Your task to perform on an android device: change text size in settings app Image 0: 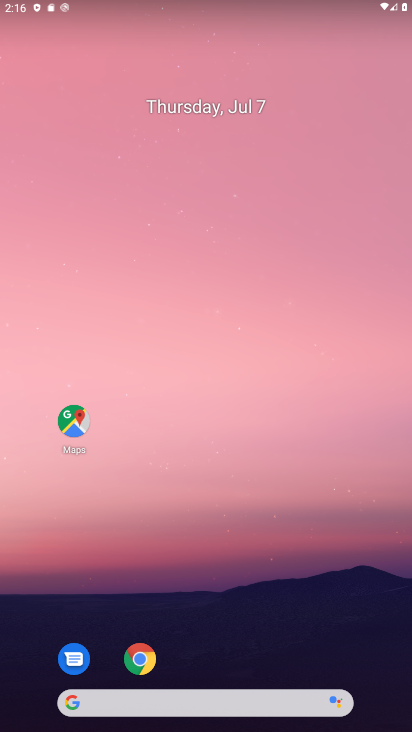
Step 0: press home button
Your task to perform on an android device: change text size in settings app Image 1: 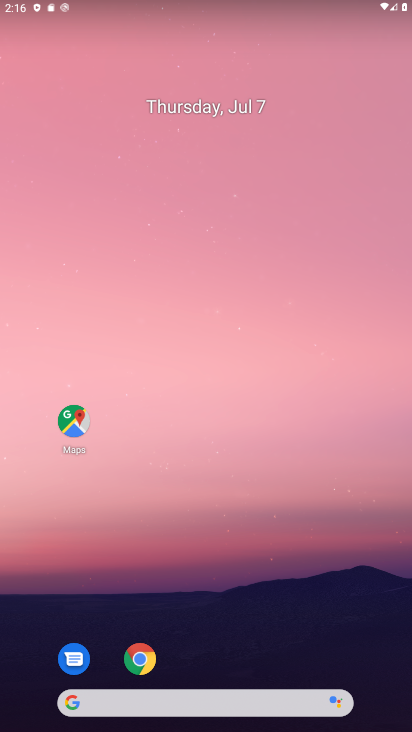
Step 1: drag from (193, 668) to (218, 0)
Your task to perform on an android device: change text size in settings app Image 2: 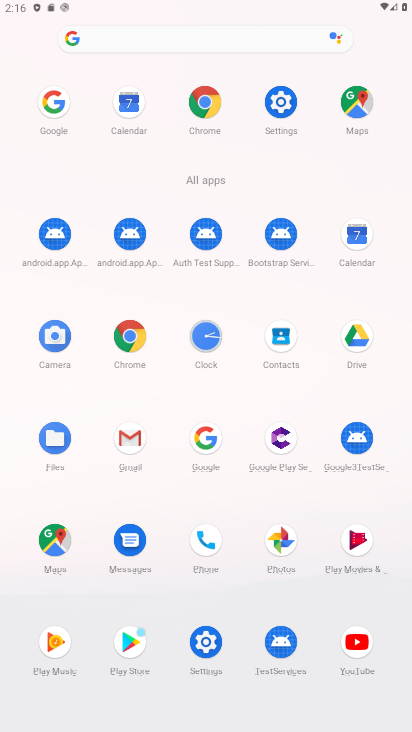
Step 2: click (278, 95)
Your task to perform on an android device: change text size in settings app Image 3: 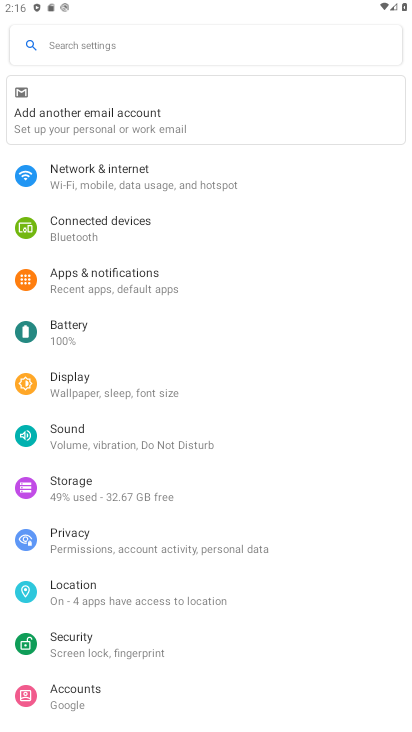
Step 3: click (103, 376)
Your task to perform on an android device: change text size in settings app Image 4: 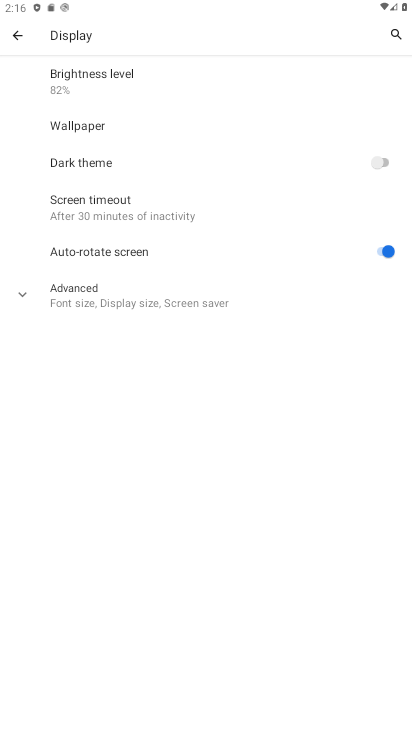
Step 4: click (82, 290)
Your task to perform on an android device: change text size in settings app Image 5: 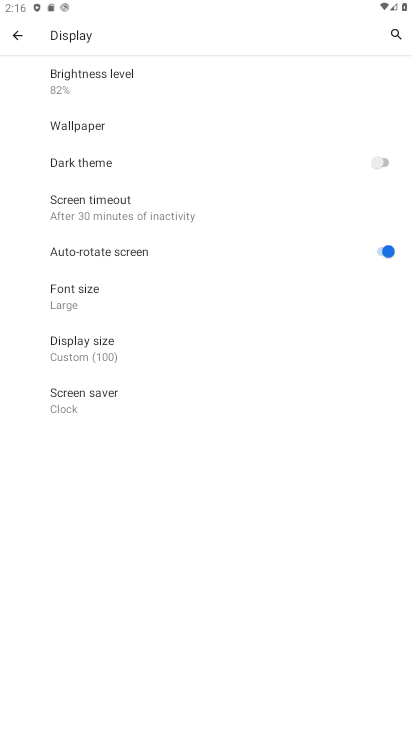
Step 5: click (100, 292)
Your task to perform on an android device: change text size in settings app Image 6: 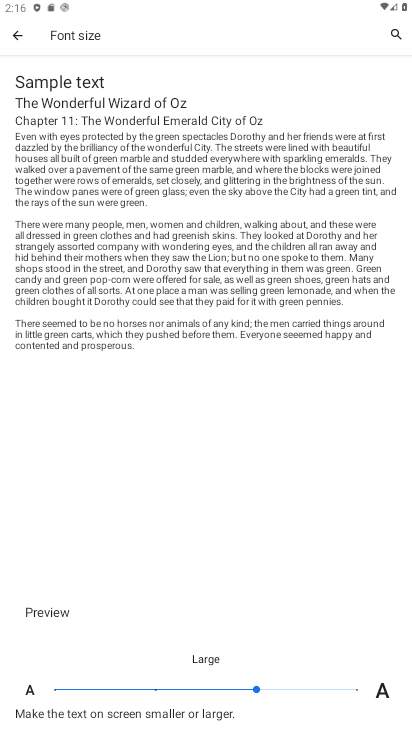
Step 6: click (356, 689)
Your task to perform on an android device: change text size in settings app Image 7: 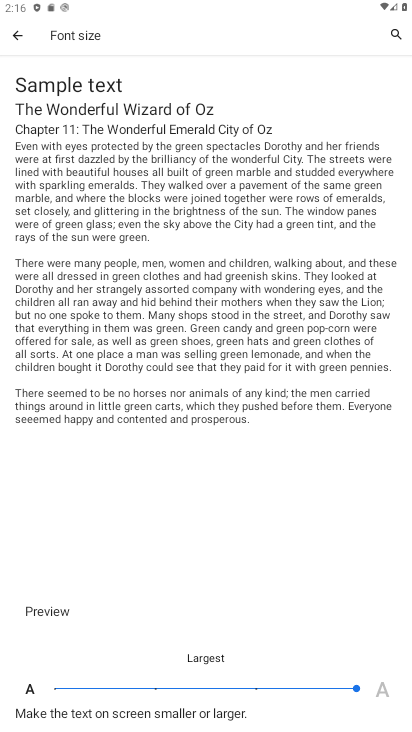
Step 7: task complete